Your task to perform on an android device: Go to display settings Image 0: 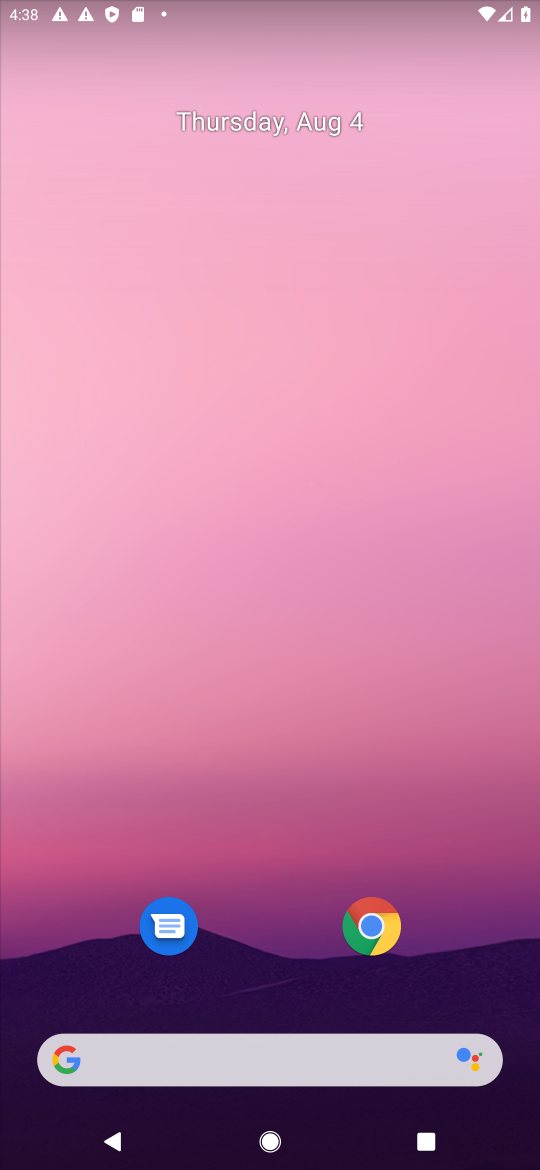
Step 0: press home button
Your task to perform on an android device: Go to display settings Image 1: 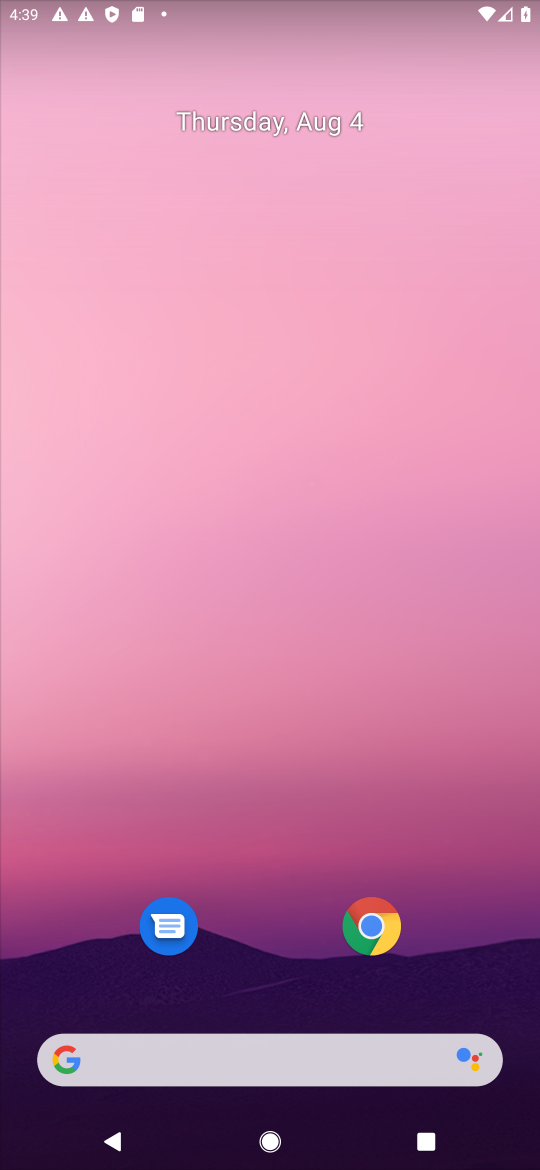
Step 1: drag from (290, 980) to (357, 387)
Your task to perform on an android device: Go to display settings Image 2: 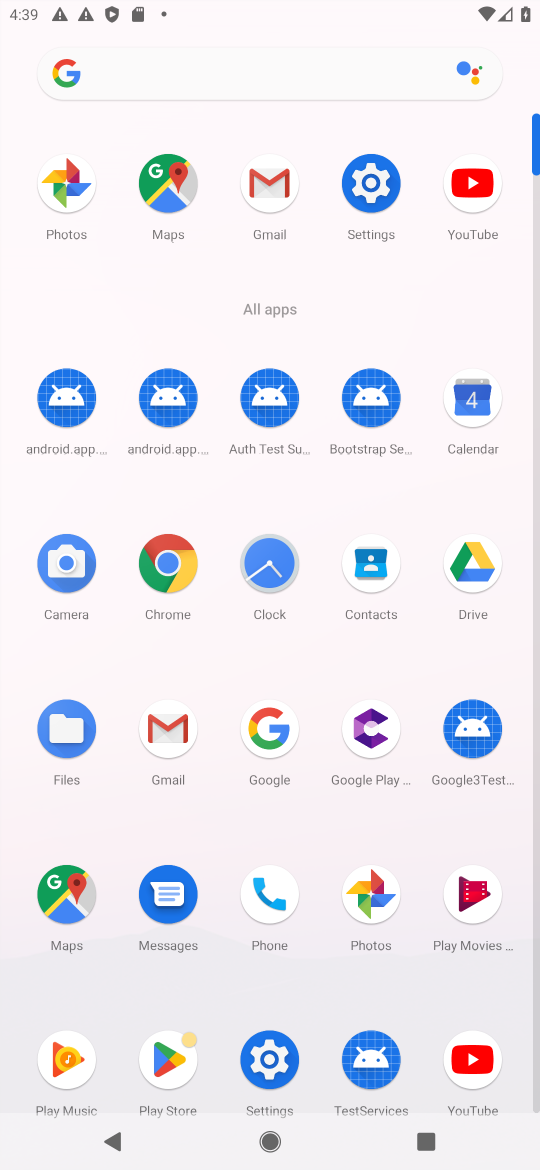
Step 2: click (379, 214)
Your task to perform on an android device: Go to display settings Image 3: 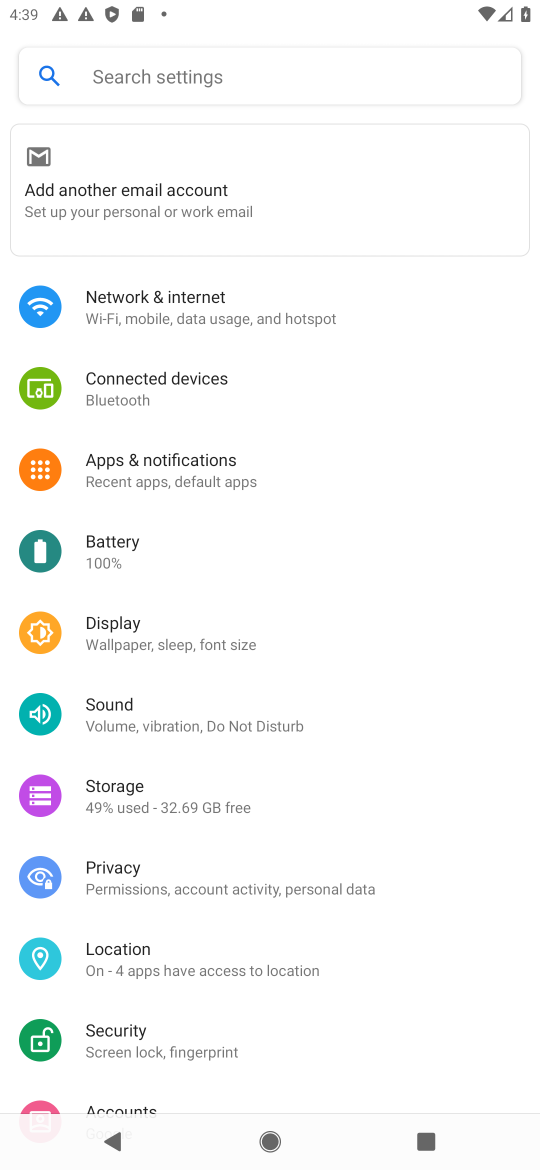
Step 3: click (95, 643)
Your task to perform on an android device: Go to display settings Image 4: 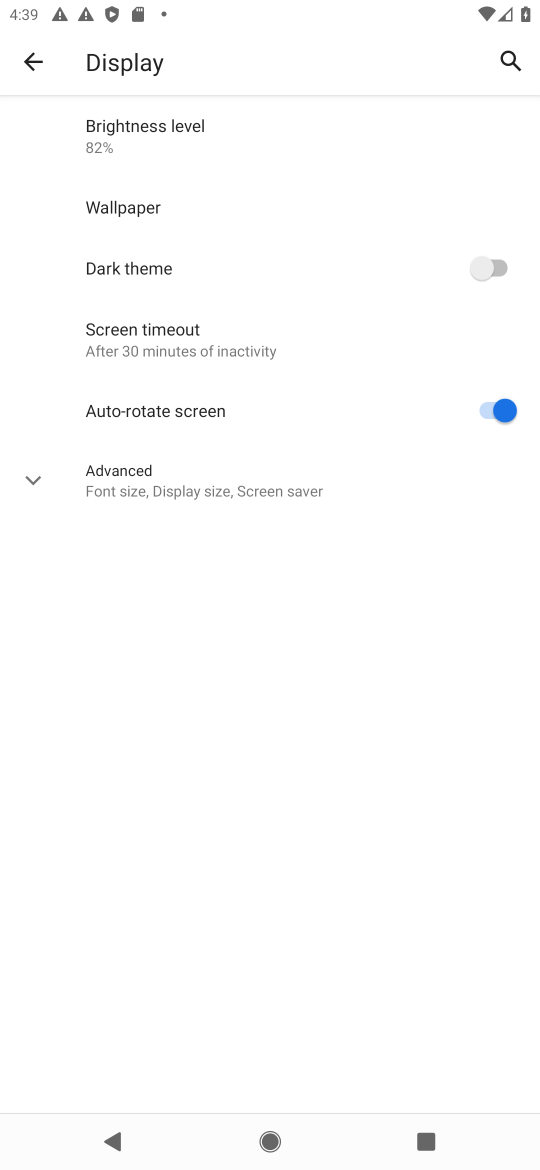
Step 4: task complete